Your task to perform on an android device: check the backup settings in the google photos Image 0: 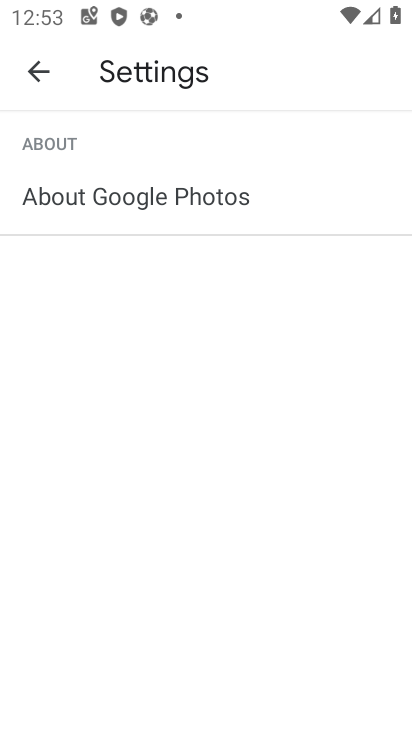
Step 0: press home button
Your task to perform on an android device: check the backup settings in the google photos Image 1: 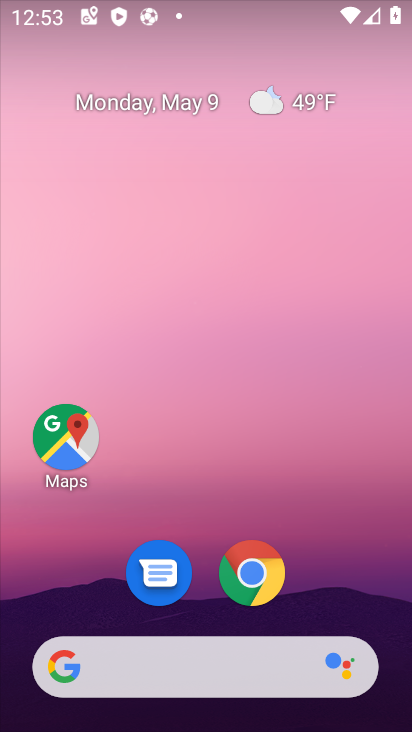
Step 1: drag from (237, 710) to (321, 242)
Your task to perform on an android device: check the backup settings in the google photos Image 2: 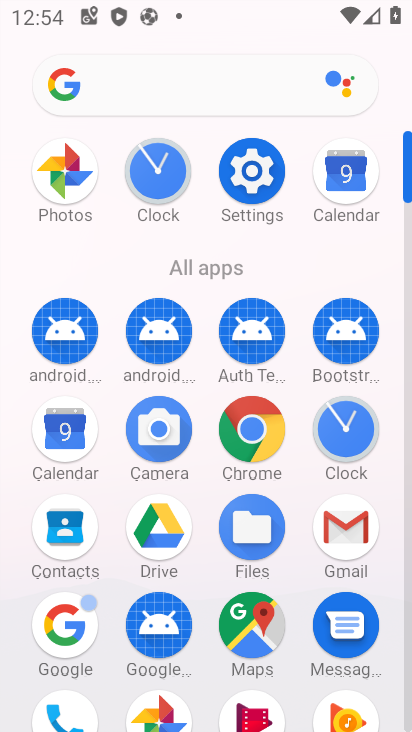
Step 2: click (146, 694)
Your task to perform on an android device: check the backup settings in the google photos Image 3: 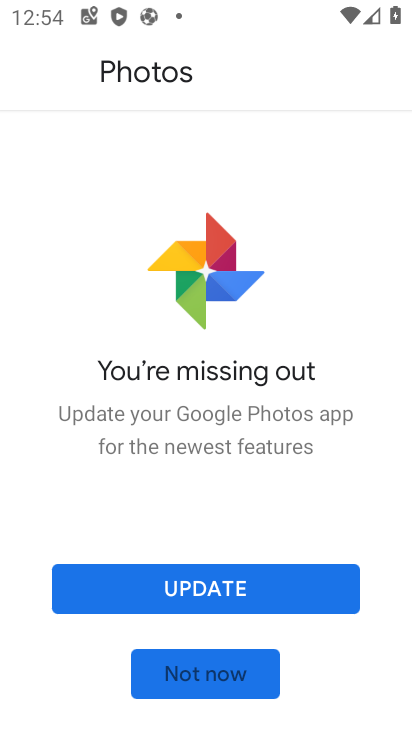
Step 3: click (281, 583)
Your task to perform on an android device: check the backup settings in the google photos Image 4: 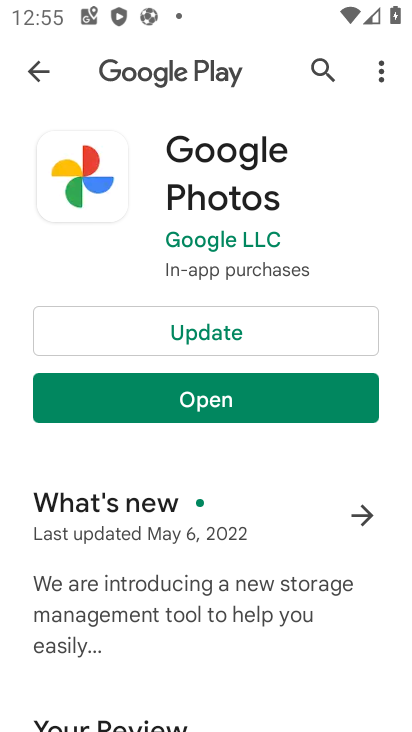
Step 4: click (253, 326)
Your task to perform on an android device: check the backup settings in the google photos Image 5: 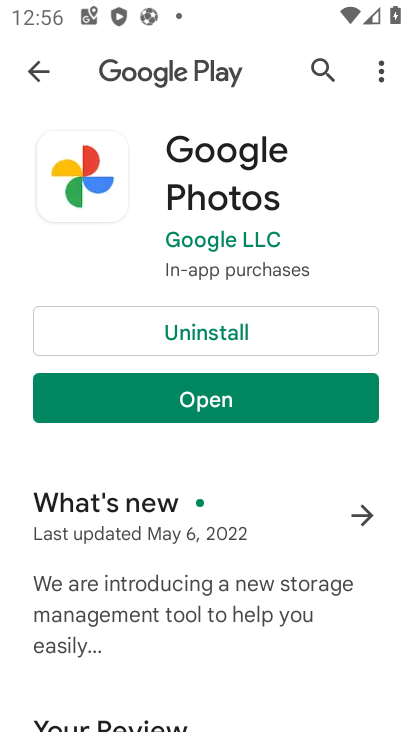
Step 5: click (255, 413)
Your task to perform on an android device: check the backup settings in the google photos Image 6: 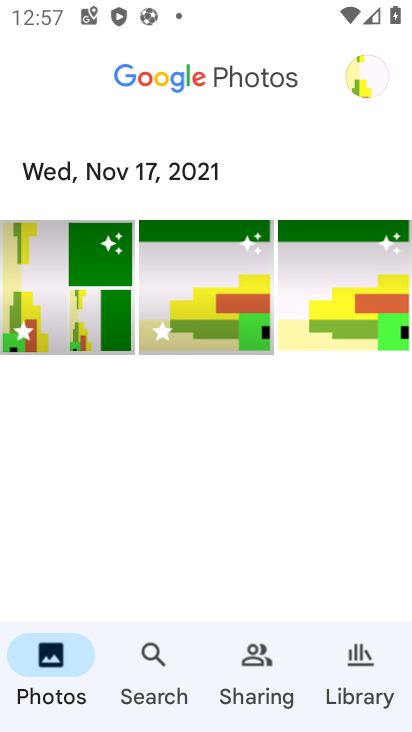
Step 6: click (385, 74)
Your task to perform on an android device: check the backup settings in the google photos Image 7: 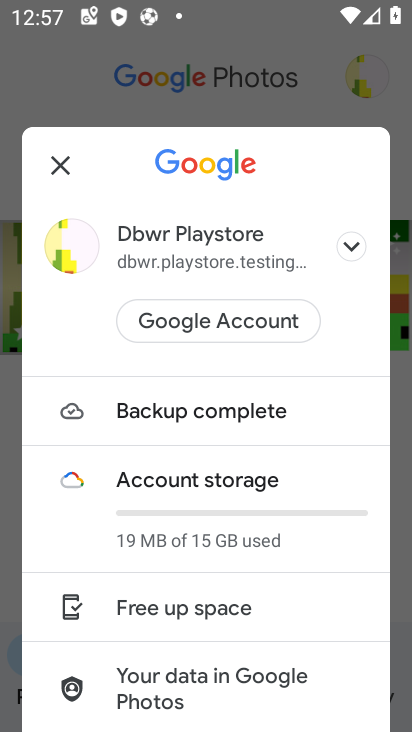
Step 7: click (282, 220)
Your task to perform on an android device: check the backup settings in the google photos Image 8: 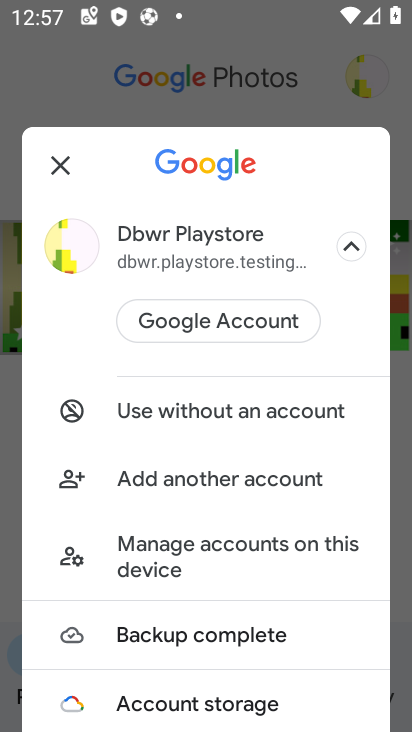
Step 8: drag from (200, 661) to (132, 43)
Your task to perform on an android device: check the backup settings in the google photos Image 9: 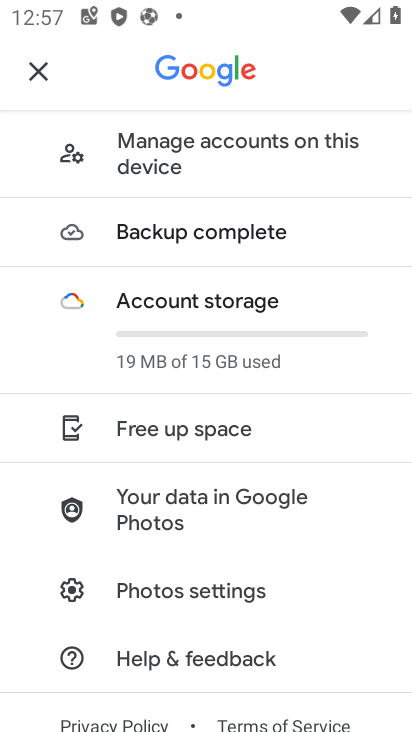
Step 9: click (214, 585)
Your task to perform on an android device: check the backup settings in the google photos Image 10: 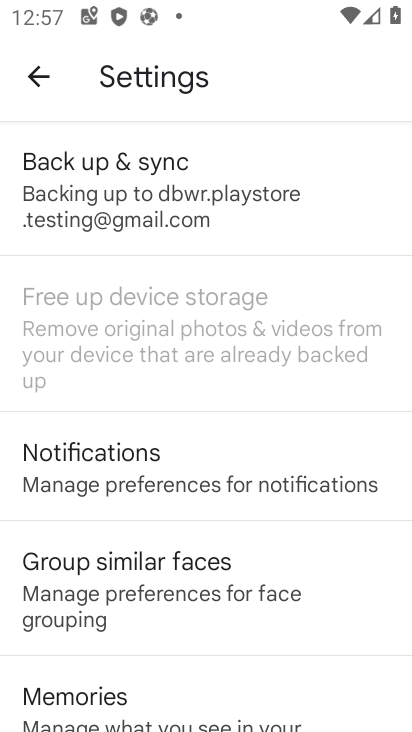
Step 10: click (135, 210)
Your task to perform on an android device: check the backup settings in the google photos Image 11: 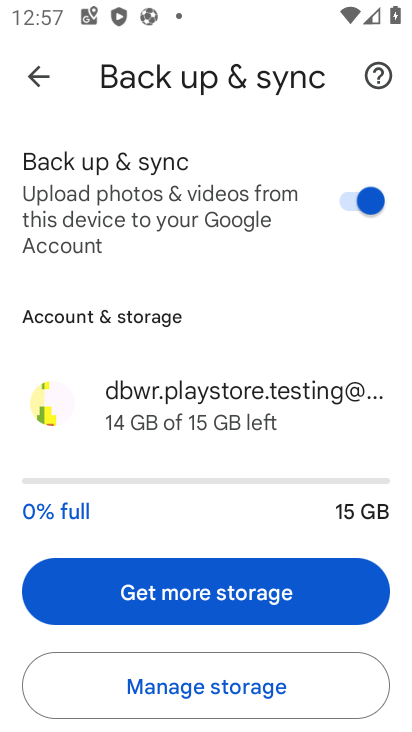
Step 11: task complete